Your task to perform on an android device: What's on my calendar tomorrow? Image 0: 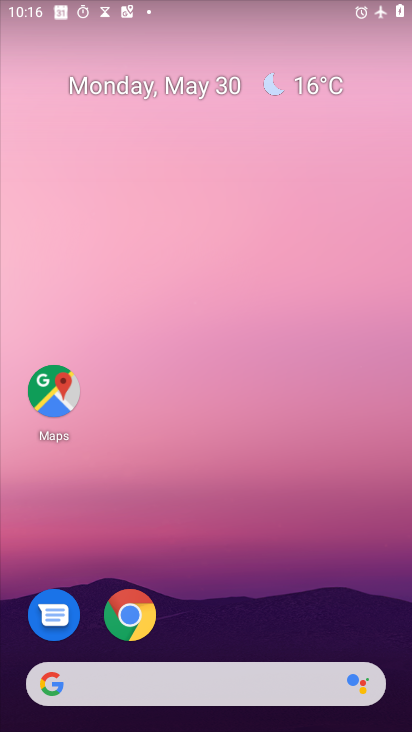
Step 0: drag from (295, 532) to (315, 25)
Your task to perform on an android device: What's on my calendar tomorrow? Image 1: 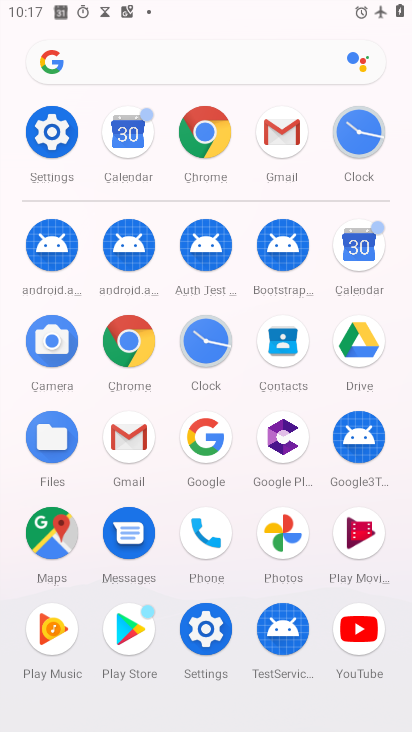
Step 1: click (375, 240)
Your task to perform on an android device: What's on my calendar tomorrow? Image 2: 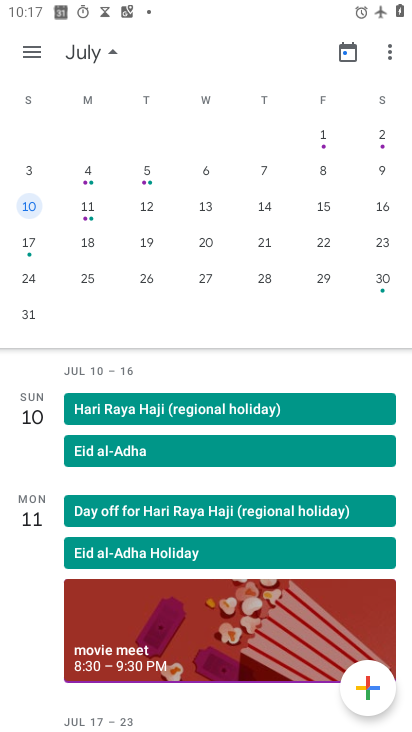
Step 2: click (88, 214)
Your task to perform on an android device: What's on my calendar tomorrow? Image 3: 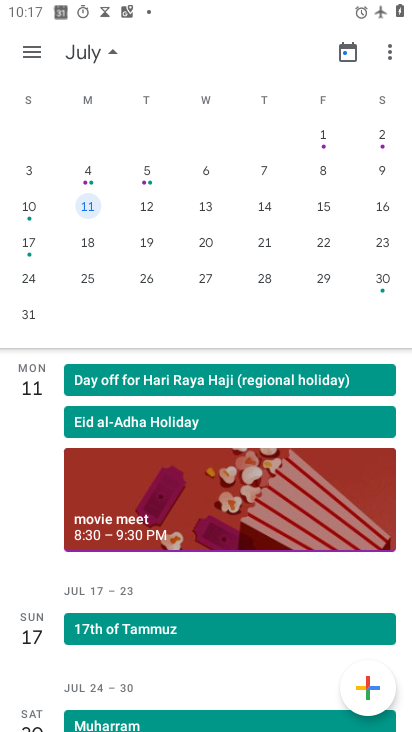
Step 3: task complete